Your task to perform on an android device: Open settings on Google Maps Image 0: 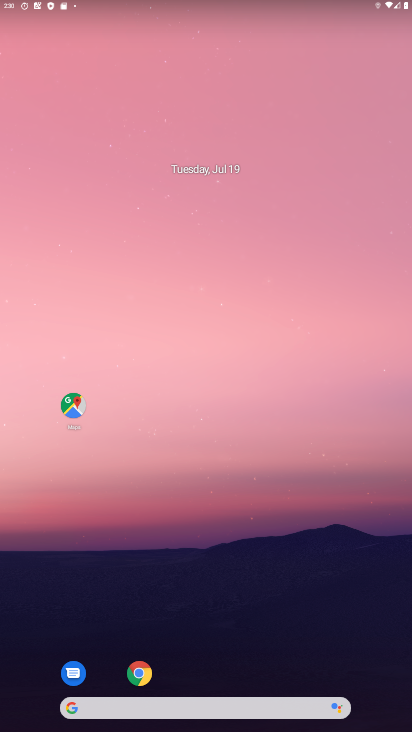
Step 0: drag from (243, 671) to (267, 8)
Your task to perform on an android device: Open settings on Google Maps Image 1: 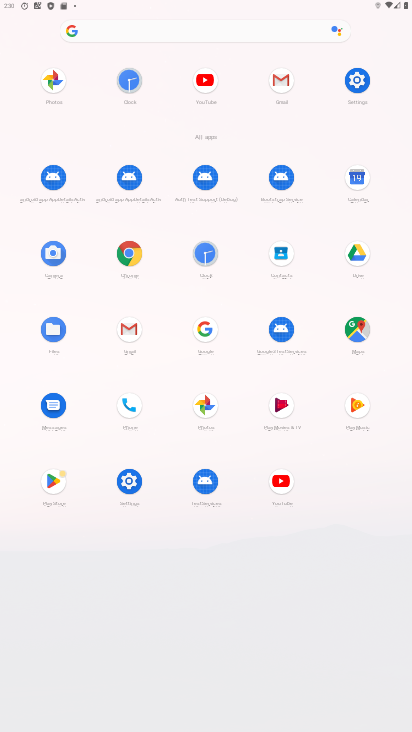
Step 1: click (136, 316)
Your task to perform on an android device: Open settings on Google Maps Image 2: 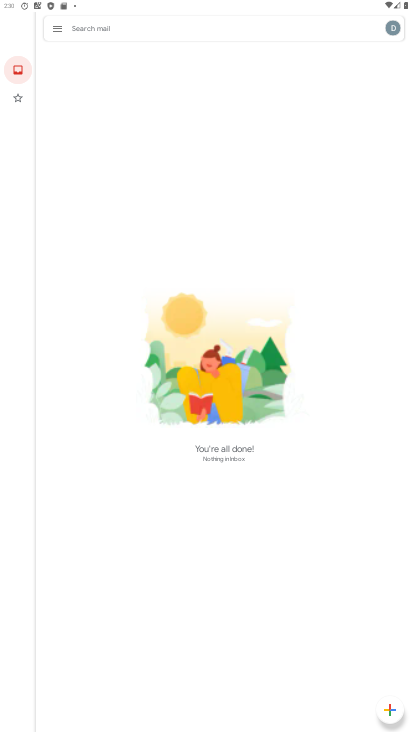
Step 2: click (51, 27)
Your task to perform on an android device: Open settings on Google Maps Image 3: 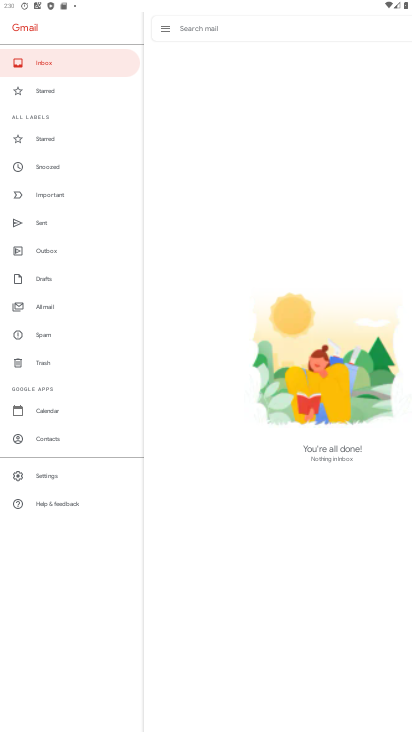
Step 3: press home button
Your task to perform on an android device: Open settings on Google Maps Image 4: 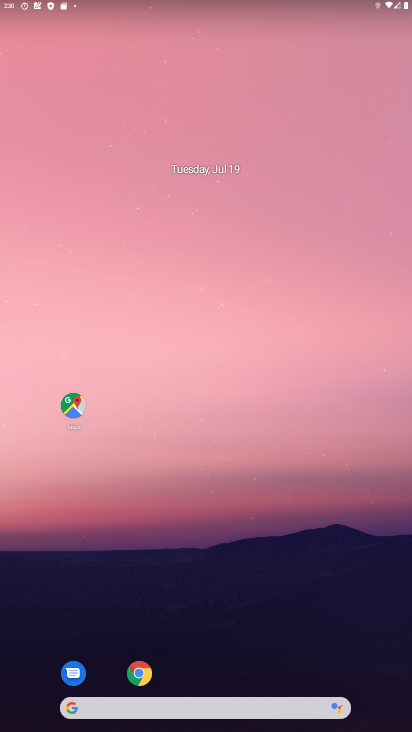
Step 4: click (70, 410)
Your task to perform on an android device: Open settings on Google Maps Image 5: 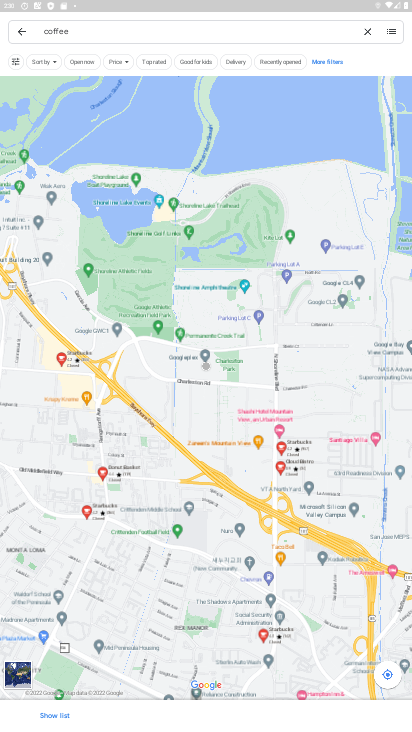
Step 5: click (23, 33)
Your task to perform on an android device: Open settings on Google Maps Image 6: 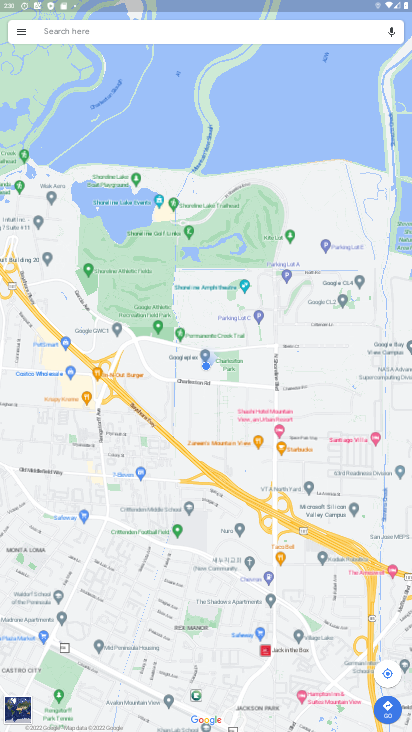
Step 6: click (20, 33)
Your task to perform on an android device: Open settings on Google Maps Image 7: 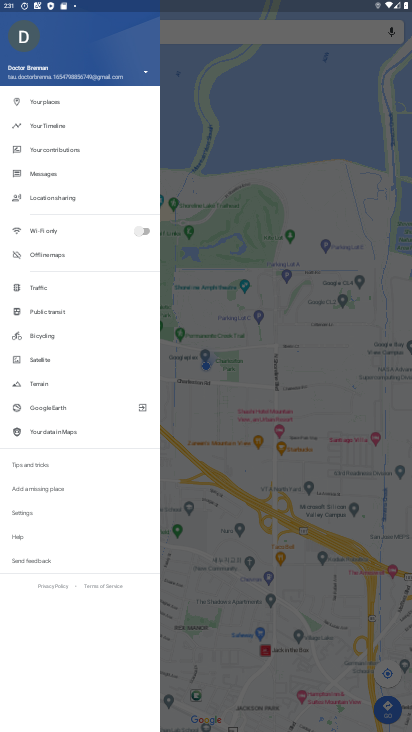
Step 7: click (32, 513)
Your task to perform on an android device: Open settings on Google Maps Image 8: 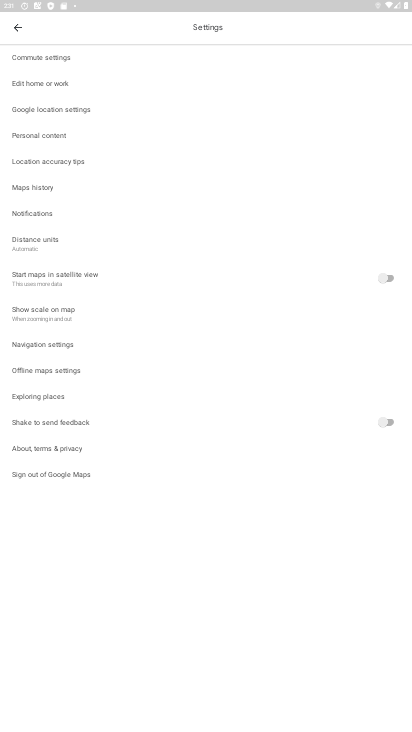
Step 8: task complete